Your task to perform on an android device: see sites visited before in the chrome app Image 0: 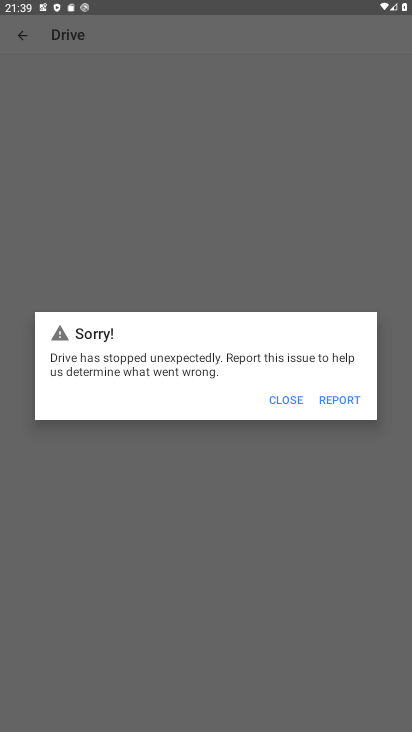
Step 0: press home button
Your task to perform on an android device: see sites visited before in the chrome app Image 1: 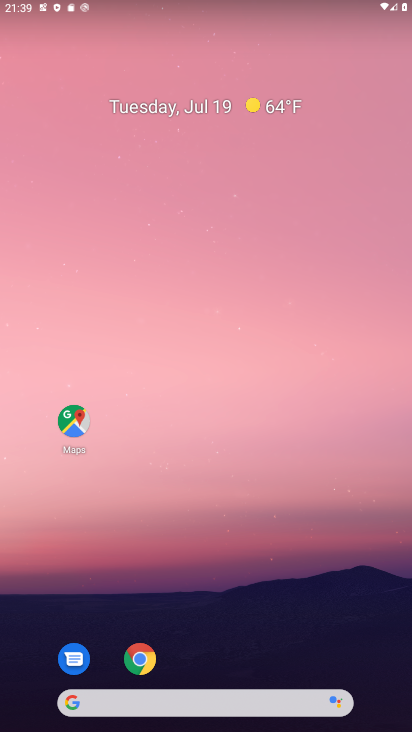
Step 1: click (141, 650)
Your task to perform on an android device: see sites visited before in the chrome app Image 2: 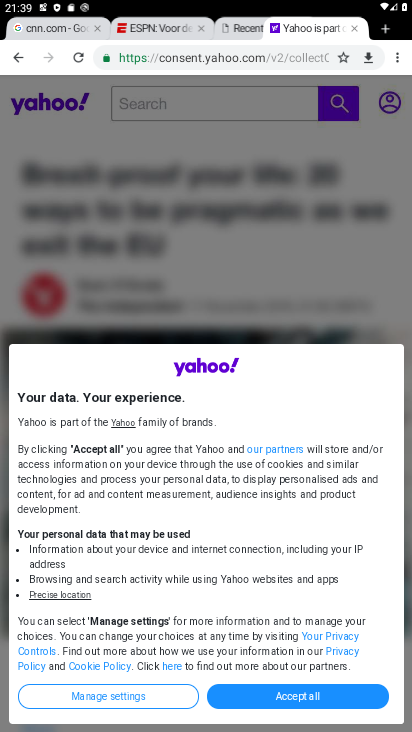
Step 2: click (390, 54)
Your task to perform on an android device: see sites visited before in the chrome app Image 3: 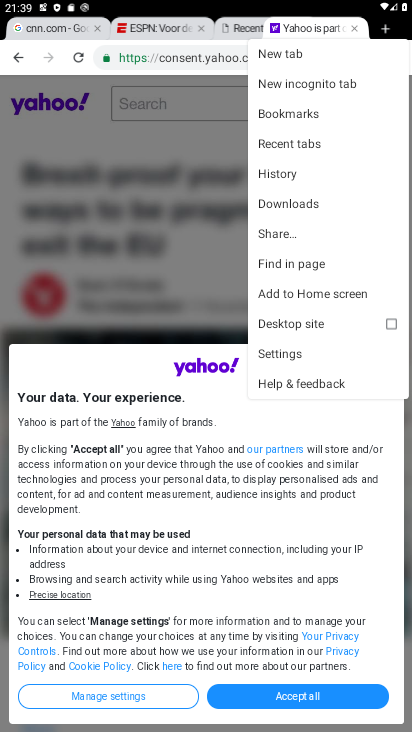
Step 3: click (338, 156)
Your task to perform on an android device: see sites visited before in the chrome app Image 4: 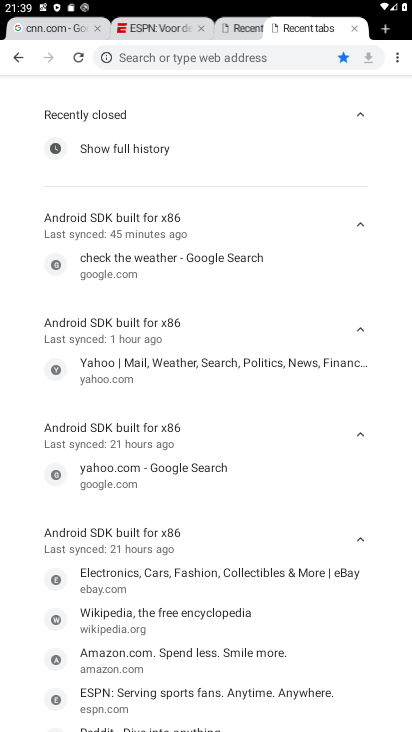
Step 4: task complete